Your task to perform on an android device: snooze an email in the gmail app Image 0: 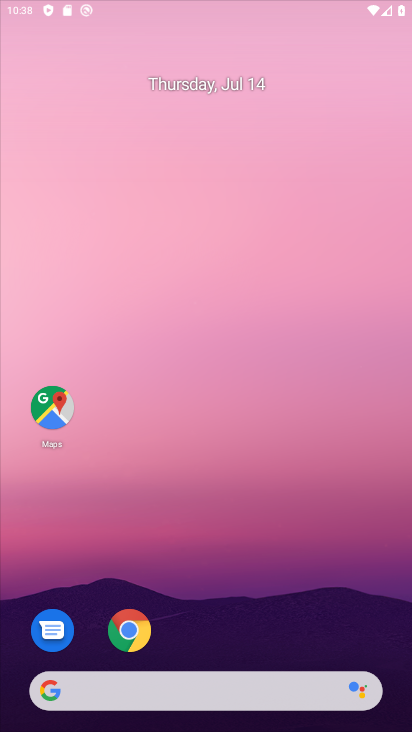
Step 0: drag from (201, 604) to (218, 323)
Your task to perform on an android device: snooze an email in the gmail app Image 1: 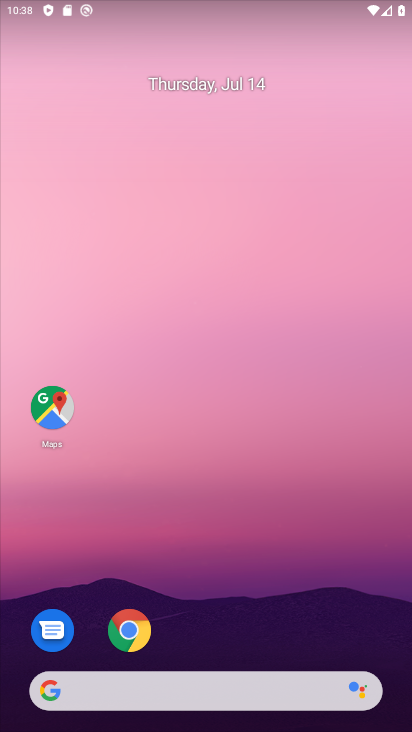
Step 1: drag from (225, 589) to (244, 138)
Your task to perform on an android device: snooze an email in the gmail app Image 2: 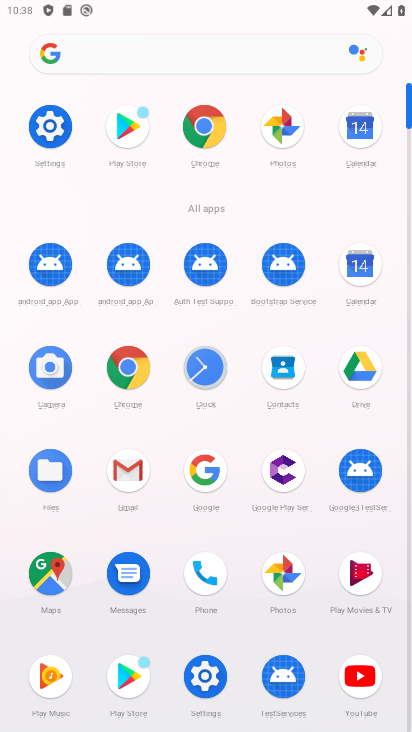
Step 2: click (138, 468)
Your task to perform on an android device: snooze an email in the gmail app Image 3: 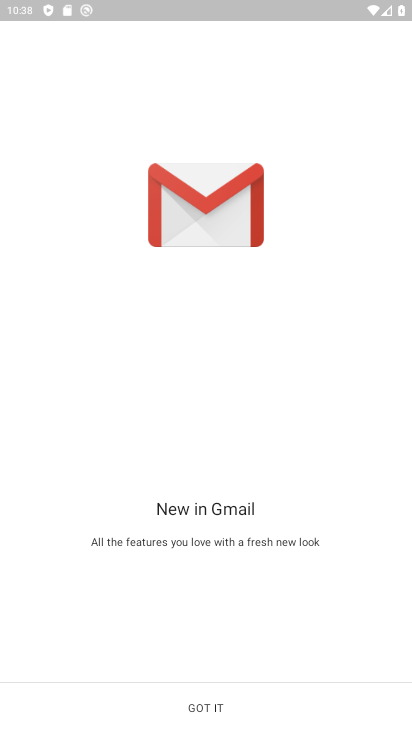
Step 3: click (190, 702)
Your task to perform on an android device: snooze an email in the gmail app Image 4: 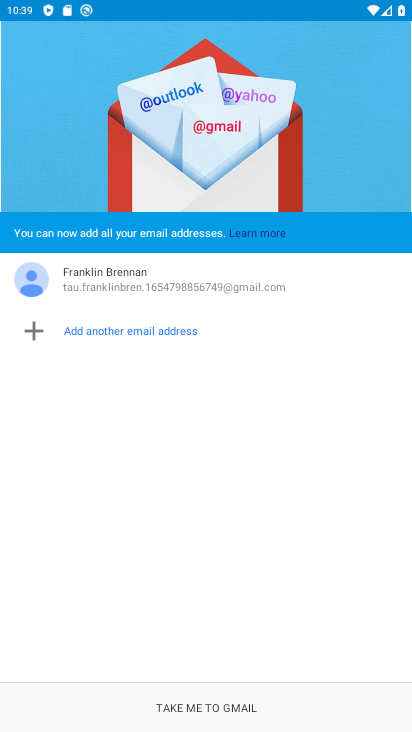
Step 4: click (206, 700)
Your task to perform on an android device: snooze an email in the gmail app Image 5: 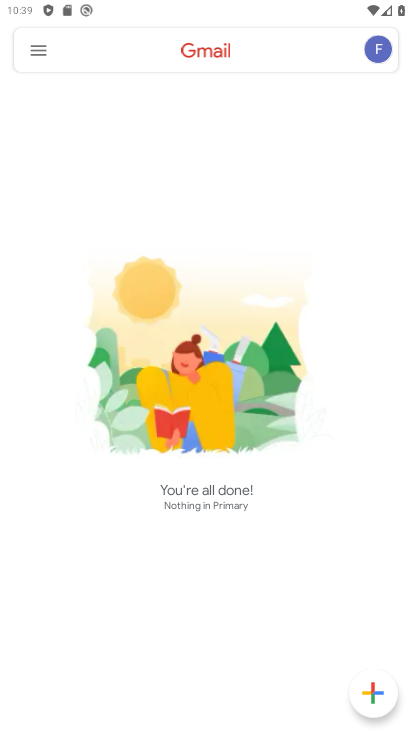
Step 5: click (28, 50)
Your task to perform on an android device: snooze an email in the gmail app Image 6: 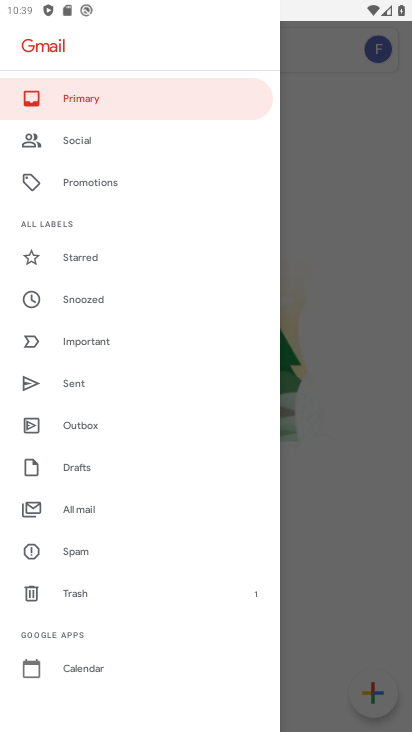
Step 6: click (101, 298)
Your task to perform on an android device: snooze an email in the gmail app Image 7: 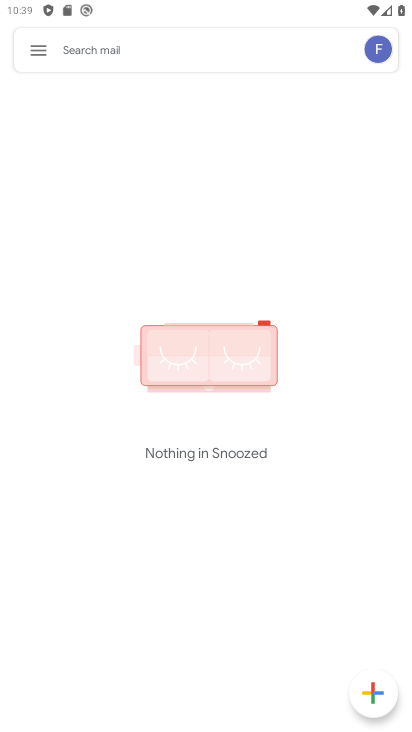
Step 7: task complete